Your task to perform on an android device: Go to Android settings Image 0: 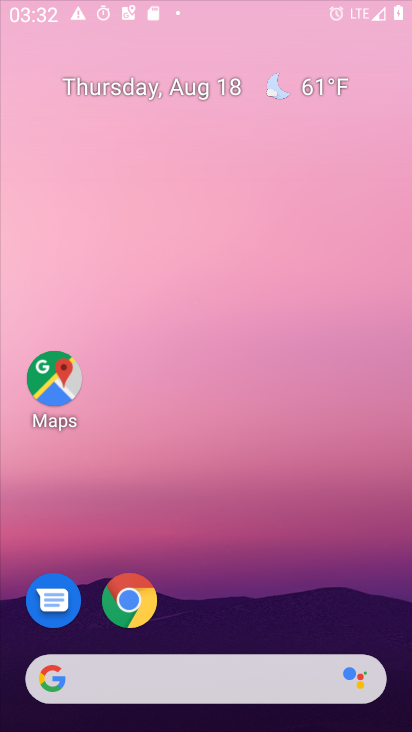
Step 0: press home button
Your task to perform on an android device: Go to Android settings Image 1: 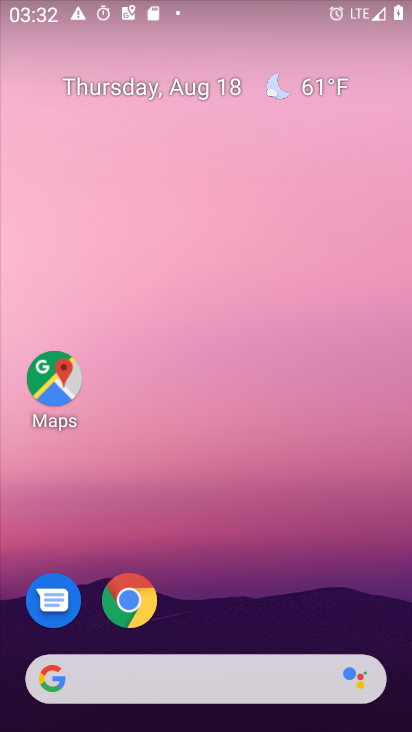
Step 1: drag from (245, 633) to (282, 4)
Your task to perform on an android device: Go to Android settings Image 2: 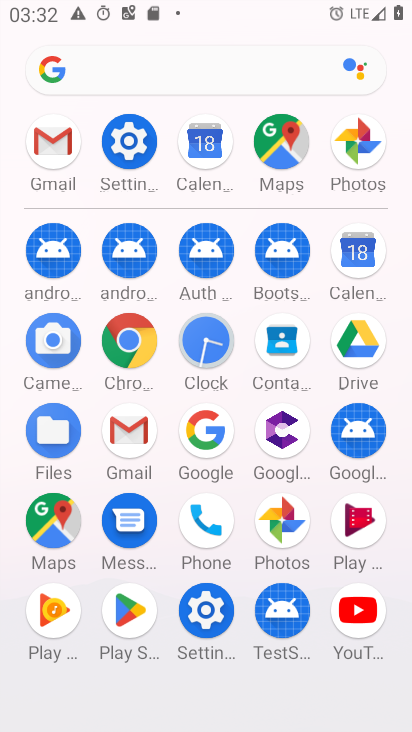
Step 2: click (140, 157)
Your task to perform on an android device: Go to Android settings Image 3: 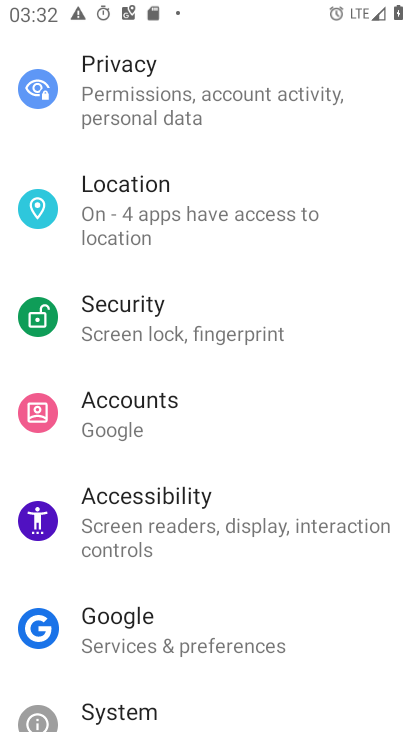
Step 3: task complete